Your task to perform on an android device: Open calendar and show me the fourth week of next month Image 0: 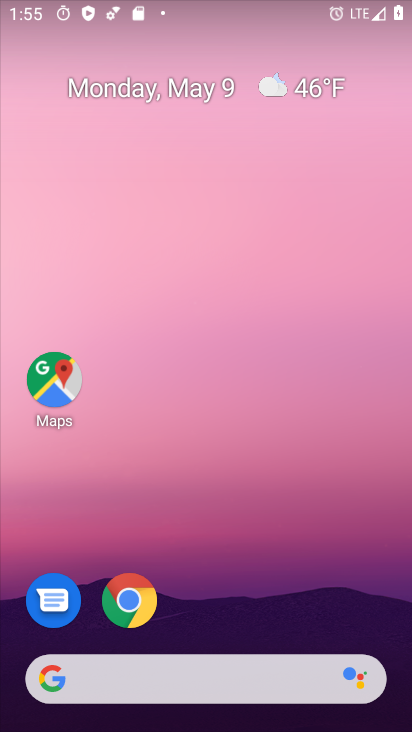
Step 0: drag from (167, 661) to (185, 224)
Your task to perform on an android device: Open calendar and show me the fourth week of next month Image 1: 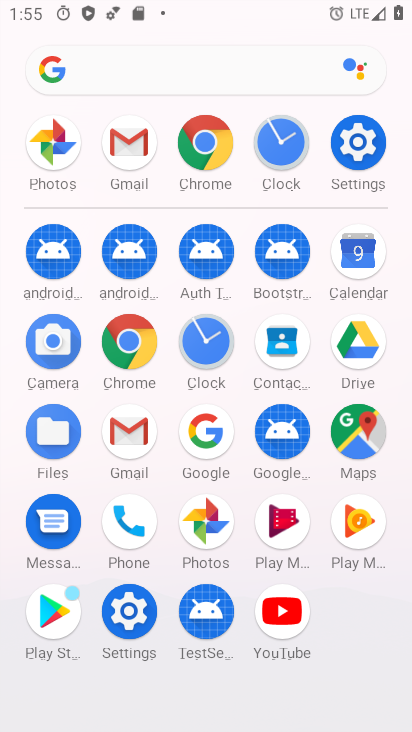
Step 1: click (349, 257)
Your task to perform on an android device: Open calendar and show me the fourth week of next month Image 2: 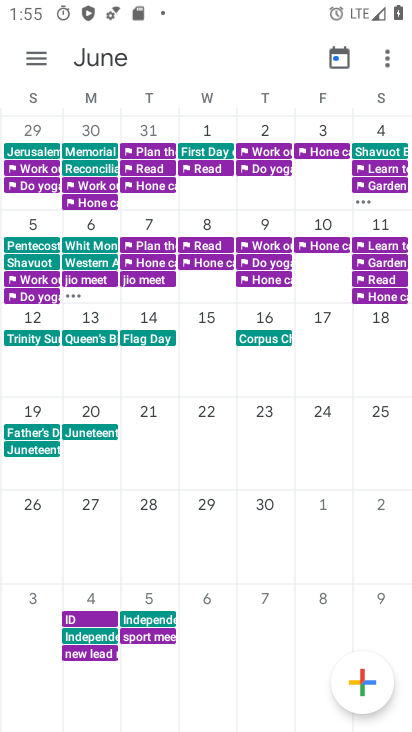
Step 2: task complete